Your task to perform on an android device: Go to wifi settings Image 0: 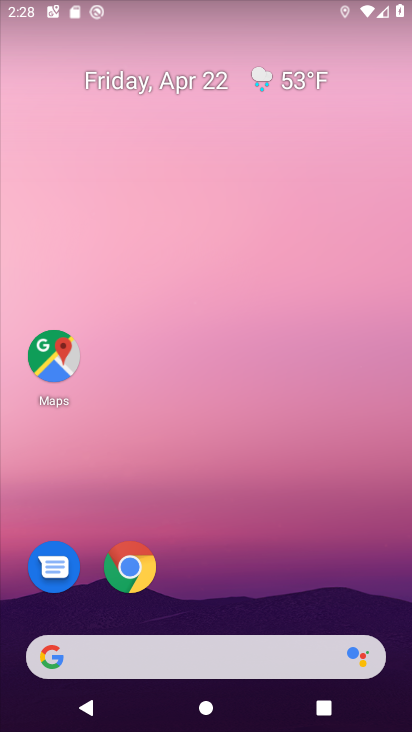
Step 0: drag from (368, 467) to (344, 67)
Your task to perform on an android device: Go to wifi settings Image 1: 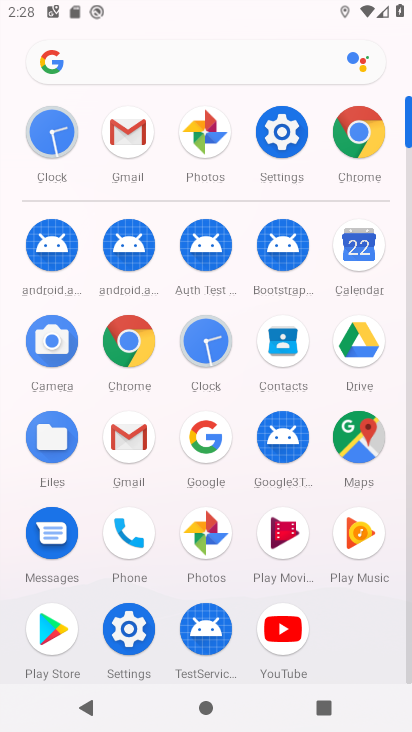
Step 1: click (285, 133)
Your task to perform on an android device: Go to wifi settings Image 2: 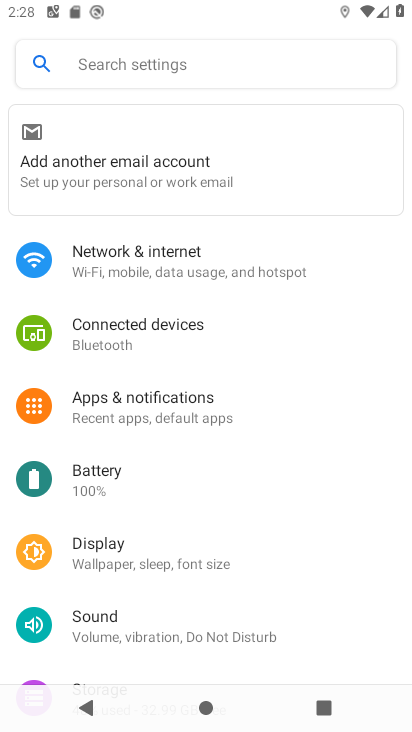
Step 2: click (260, 266)
Your task to perform on an android device: Go to wifi settings Image 3: 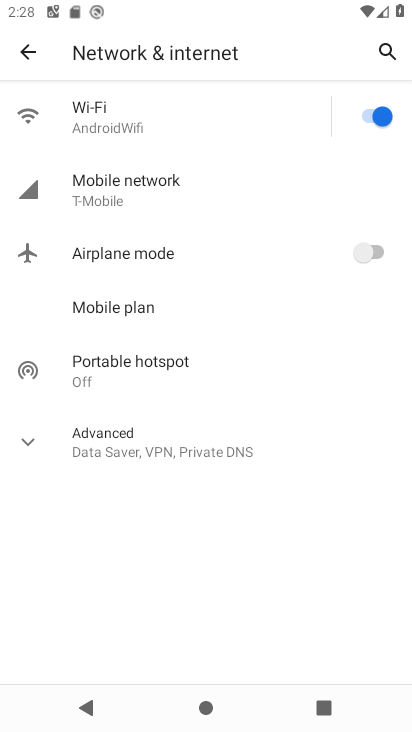
Step 3: click (225, 112)
Your task to perform on an android device: Go to wifi settings Image 4: 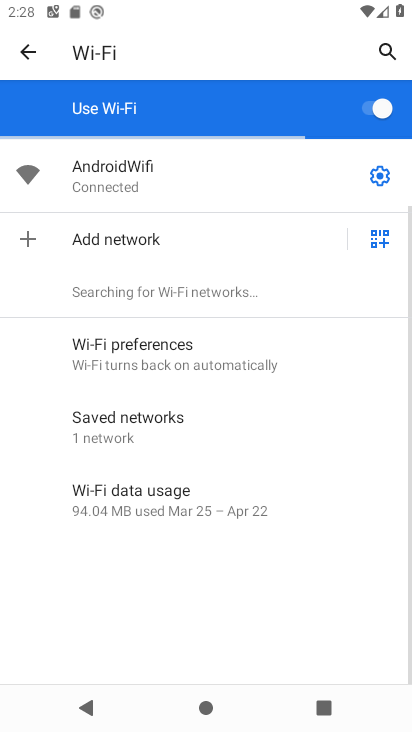
Step 4: task complete